Your task to perform on an android device: turn vacation reply on in the gmail app Image 0: 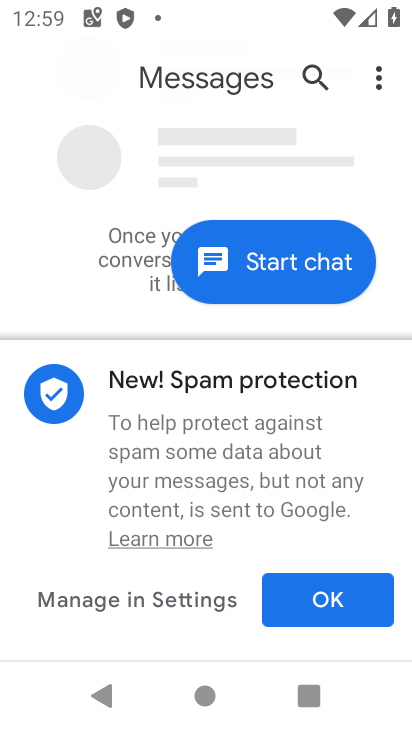
Step 0: press home button
Your task to perform on an android device: turn vacation reply on in the gmail app Image 1: 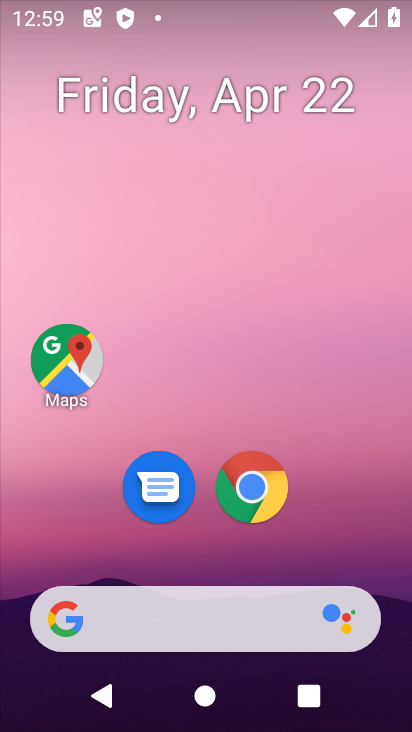
Step 1: drag from (342, 505) to (366, 150)
Your task to perform on an android device: turn vacation reply on in the gmail app Image 2: 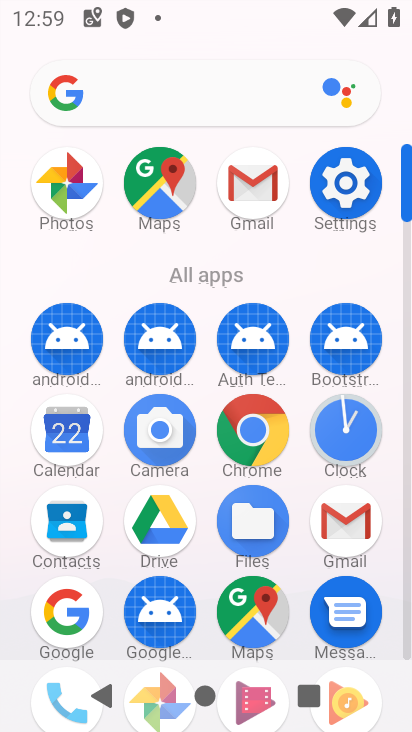
Step 2: click (261, 198)
Your task to perform on an android device: turn vacation reply on in the gmail app Image 3: 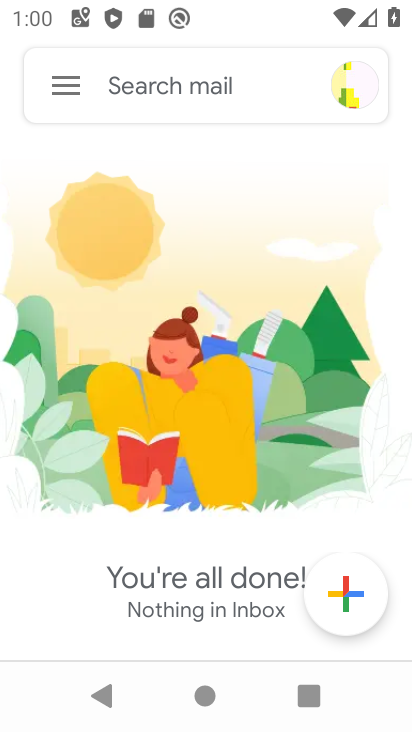
Step 3: click (67, 81)
Your task to perform on an android device: turn vacation reply on in the gmail app Image 4: 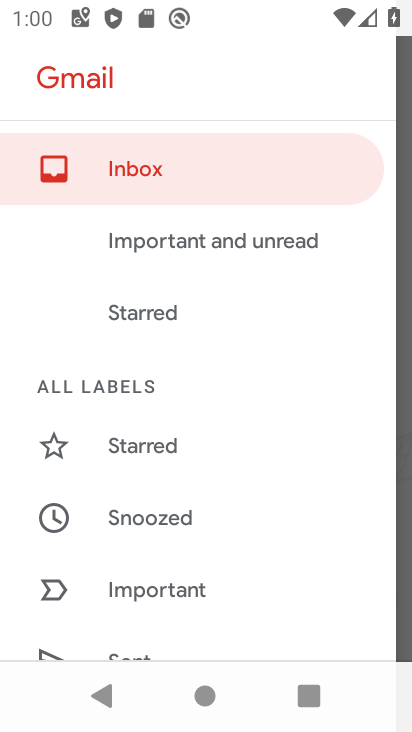
Step 4: drag from (132, 338) to (182, 101)
Your task to perform on an android device: turn vacation reply on in the gmail app Image 5: 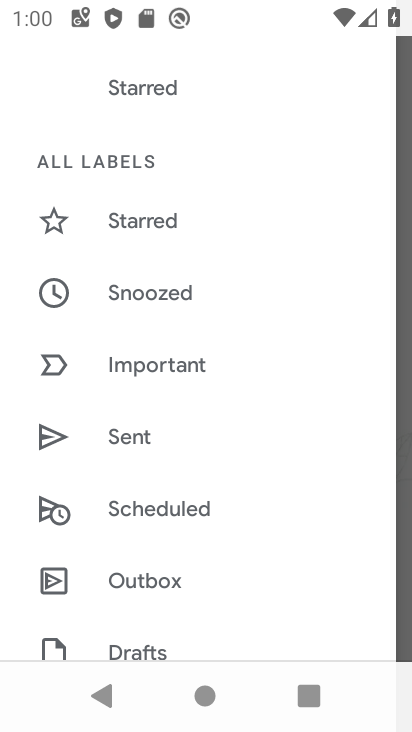
Step 5: drag from (137, 344) to (176, 116)
Your task to perform on an android device: turn vacation reply on in the gmail app Image 6: 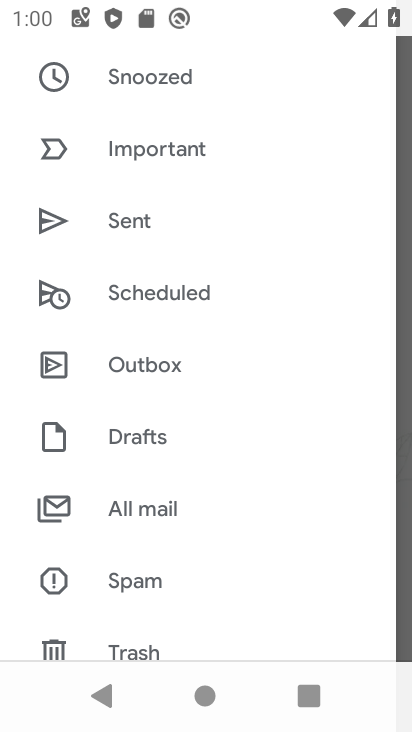
Step 6: drag from (129, 406) to (181, 140)
Your task to perform on an android device: turn vacation reply on in the gmail app Image 7: 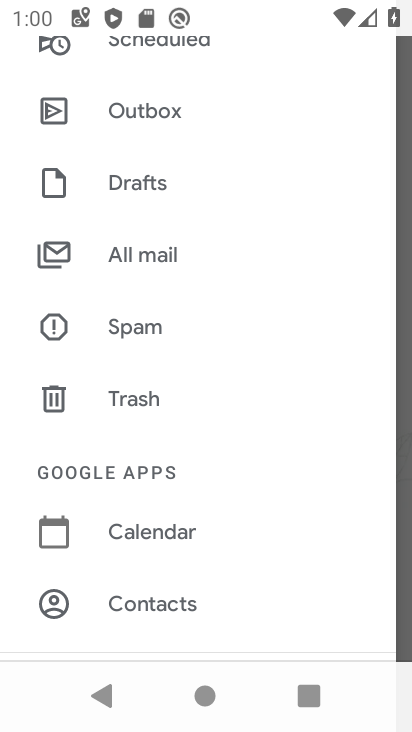
Step 7: drag from (156, 291) to (187, 90)
Your task to perform on an android device: turn vacation reply on in the gmail app Image 8: 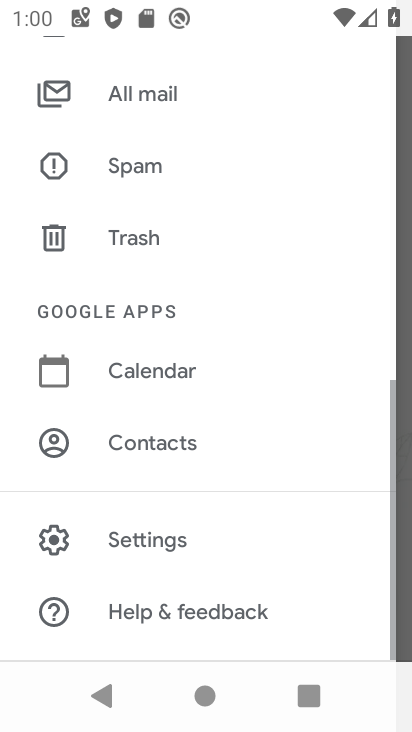
Step 8: drag from (142, 278) to (212, 90)
Your task to perform on an android device: turn vacation reply on in the gmail app Image 9: 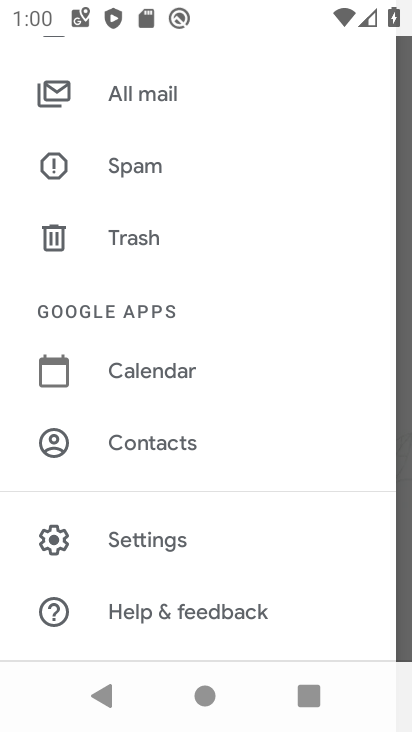
Step 9: click (149, 540)
Your task to perform on an android device: turn vacation reply on in the gmail app Image 10: 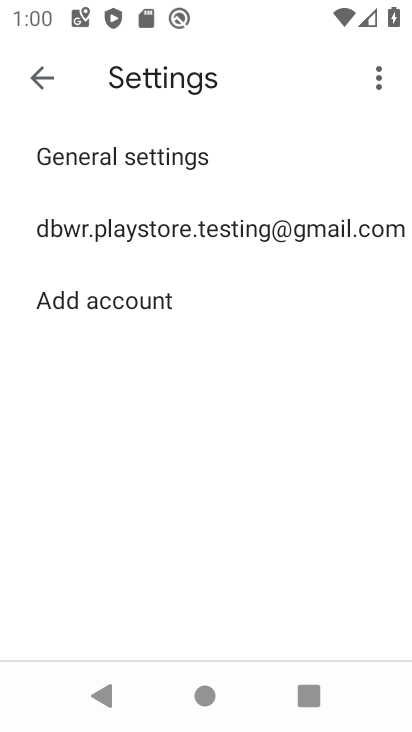
Step 10: click (269, 235)
Your task to perform on an android device: turn vacation reply on in the gmail app Image 11: 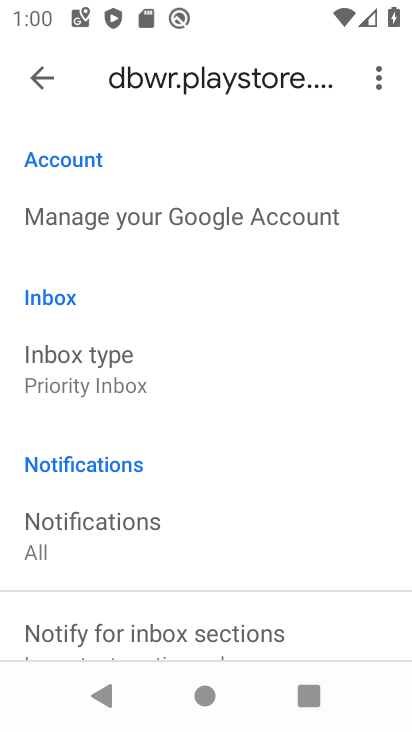
Step 11: drag from (140, 421) to (213, 175)
Your task to perform on an android device: turn vacation reply on in the gmail app Image 12: 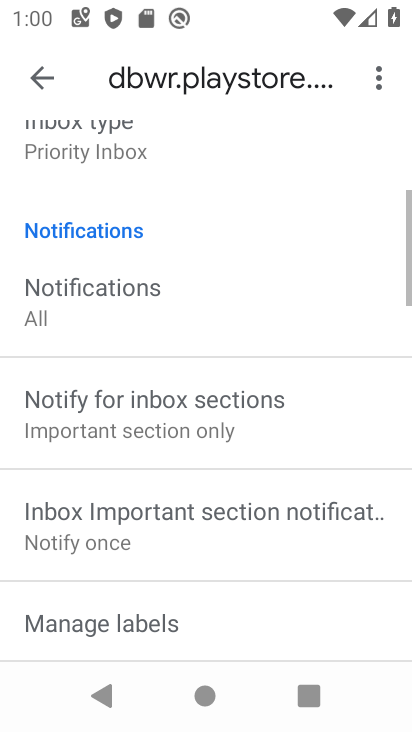
Step 12: drag from (93, 471) to (190, 186)
Your task to perform on an android device: turn vacation reply on in the gmail app Image 13: 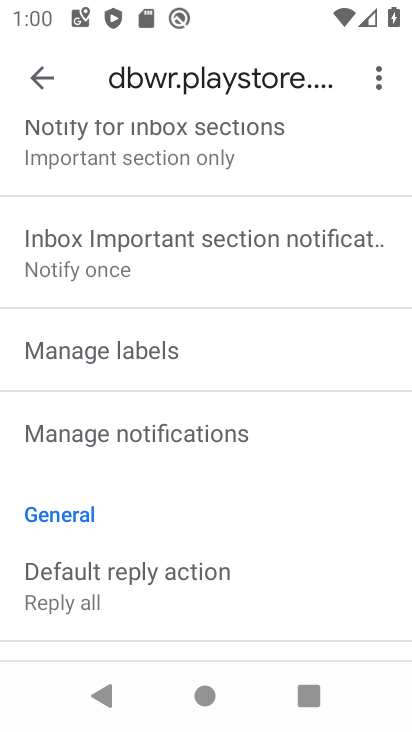
Step 13: drag from (90, 491) to (207, 226)
Your task to perform on an android device: turn vacation reply on in the gmail app Image 14: 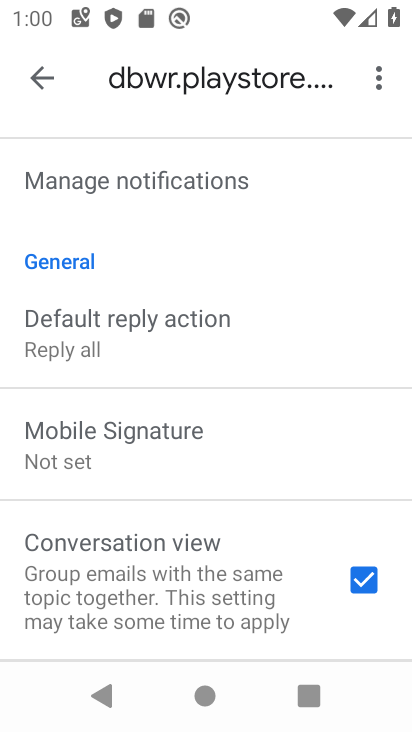
Step 14: drag from (191, 513) to (280, 204)
Your task to perform on an android device: turn vacation reply on in the gmail app Image 15: 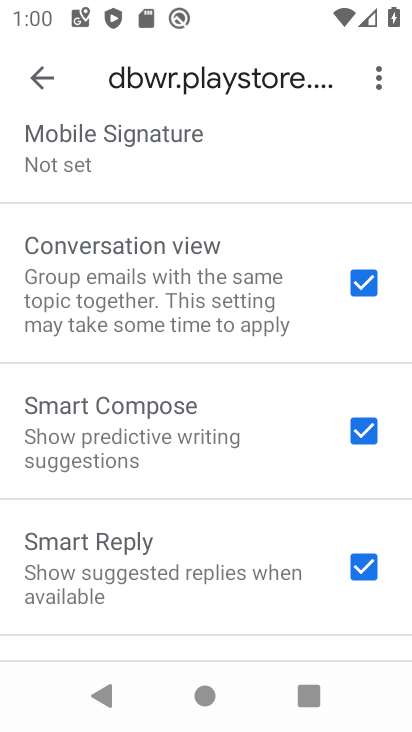
Step 15: drag from (133, 449) to (188, 242)
Your task to perform on an android device: turn vacation reply on in the gmail app Image 16: 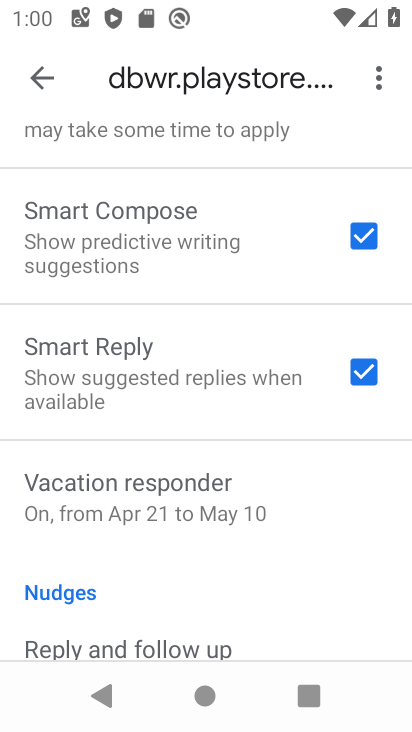
Step 16: click (123, 494)
Your task to perform on an android device: turn vacation reply on in the gmail app Image 17: 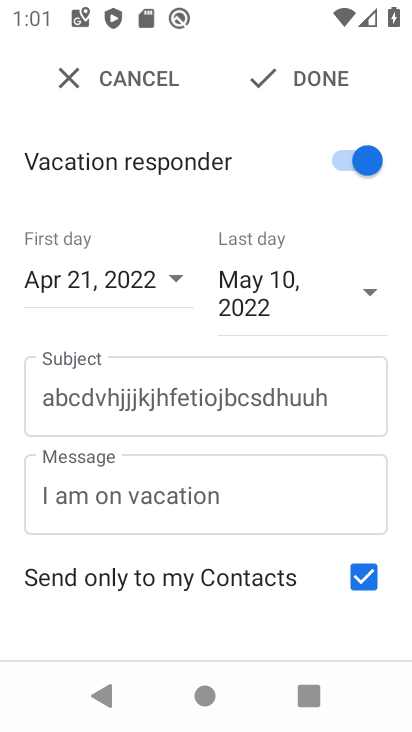
Step 17: task complete